Your task to perform on an android device: Show me popular videos on Youtube Image 0: 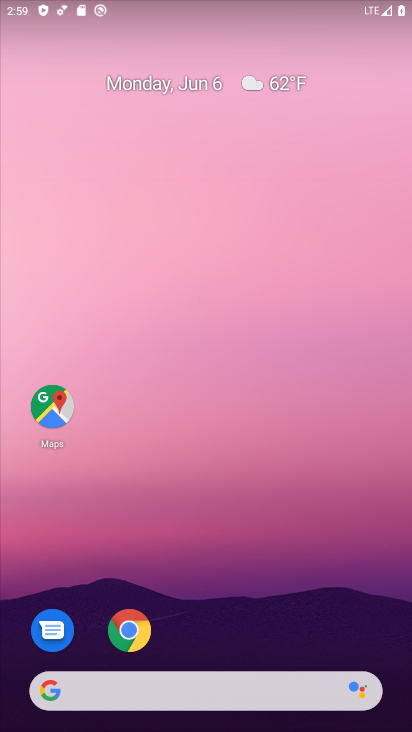
Step 0: press home button
Your task to perform on an android device: Show me popular videos on Youtube Image 1: 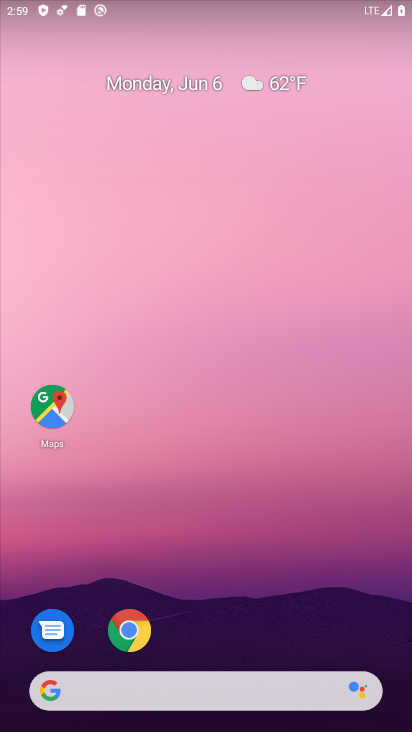
Step 1: click (121, 632)
Your task to perform on an android device: Show me popular videos on Youtube Image 2: 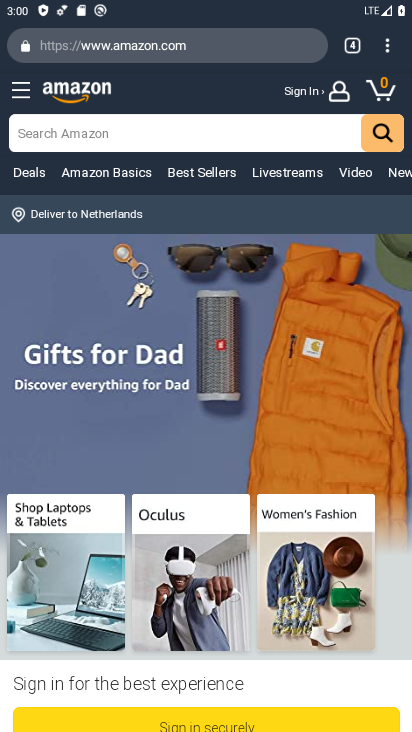
Step 2: click (175, 43)
Your task to perform on an android device: Show me popular videos on Youtube Image 3: 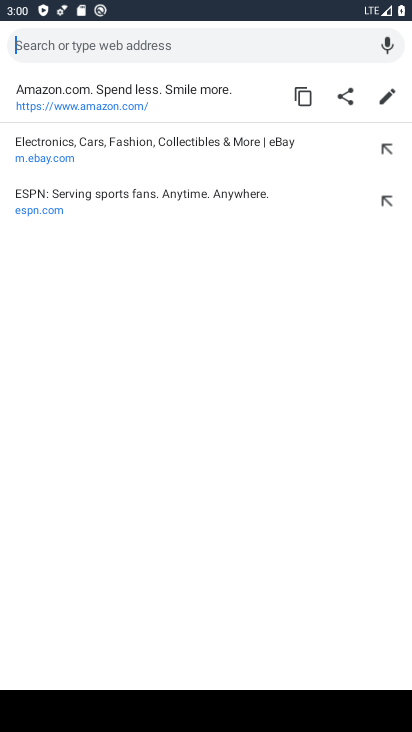
Step 3: type " popular videos"
Your task to perform on an android device: Show me popular videos on Youtube Image 4: 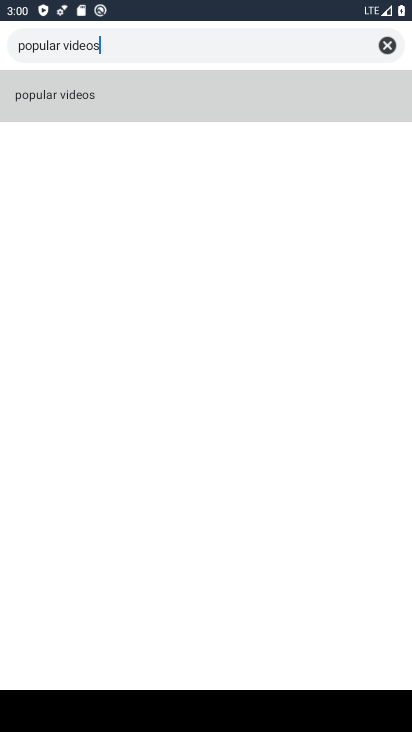
Step 4: type ""
Your task to perform on an android device: Show me popular videos on Youtube Image 5: 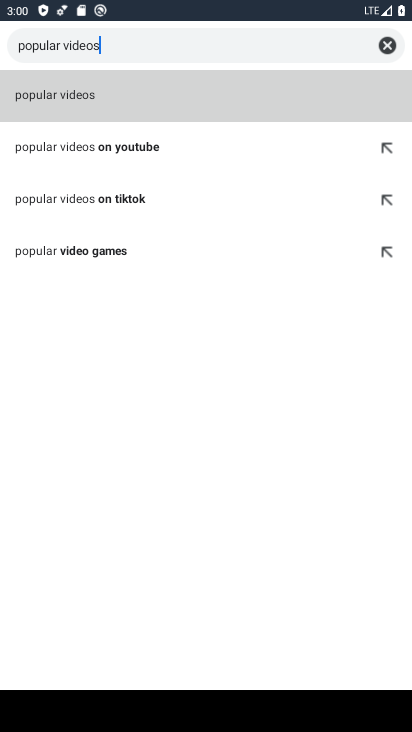
Step 5: click (117, 108)
Your task to perform on an android device: Show me popular videos on Youtube Image 6: 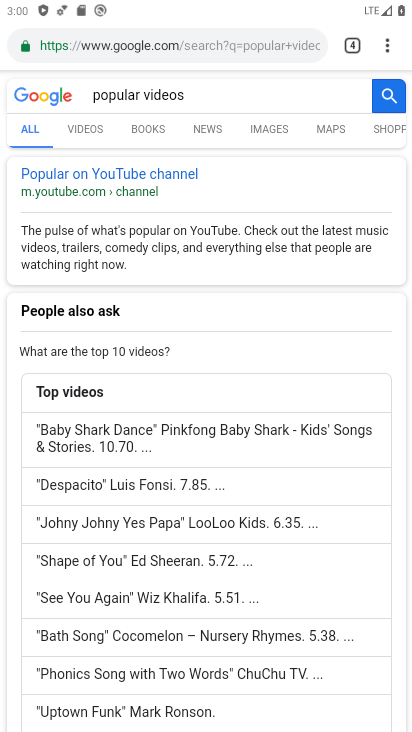
Step 6: task complete